Your task to perform on an android device: read, delete, or share a saved page in the chrome app Image 0: 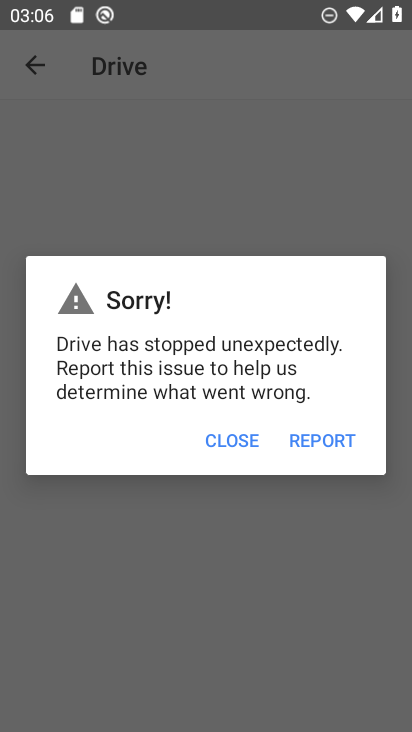
Step 0: press home button
Your task to perform on an android device: read, delete, or share a saved page in the chrome app Image 1: 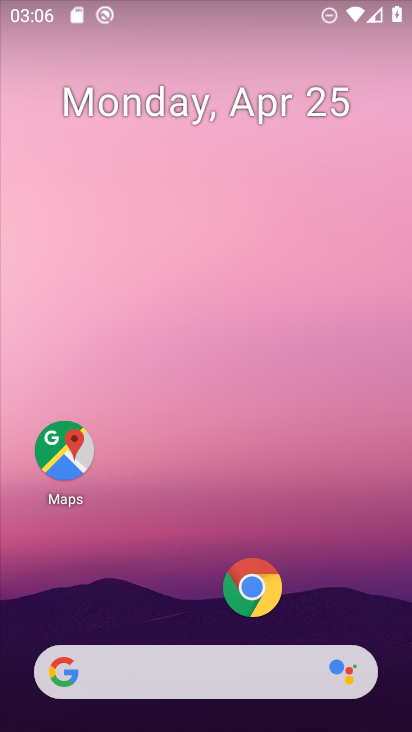
Step 1: click (252, 593)
Your task to perform on an android device: read, delete, or share a saved page in the chrome app Image 2: 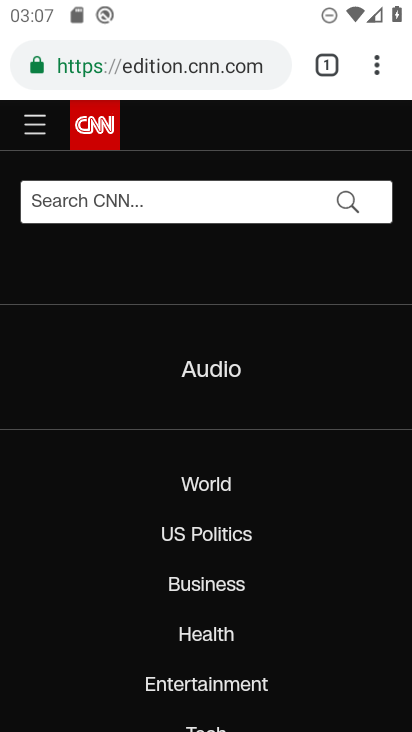
Step 2: click (365, 70)
Your task to perform on an android device: read, delete, or share a saved page in the chrome app Image 3: 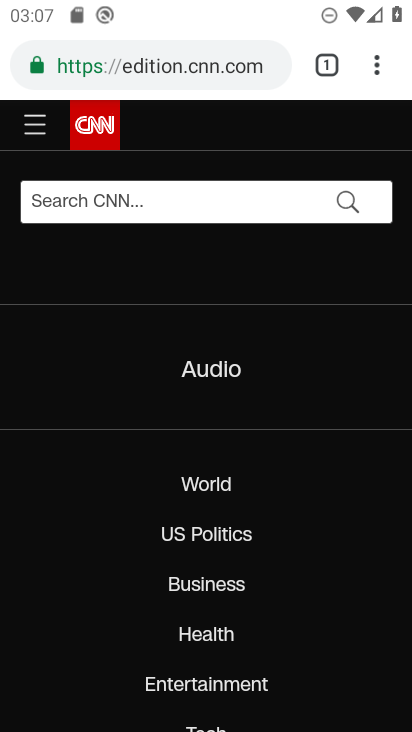
Step 3: click (374, 63)
Your task to perform on an android device: read, delete, or share a saved page in the chrome app Image 4: 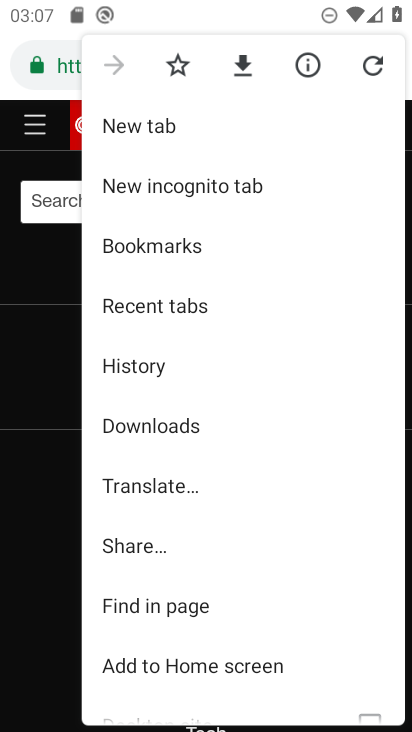
Step 4: click (208, 421)
Your task to perform on an android device: read, delete, or share a saved page in the chrome app Image 5: 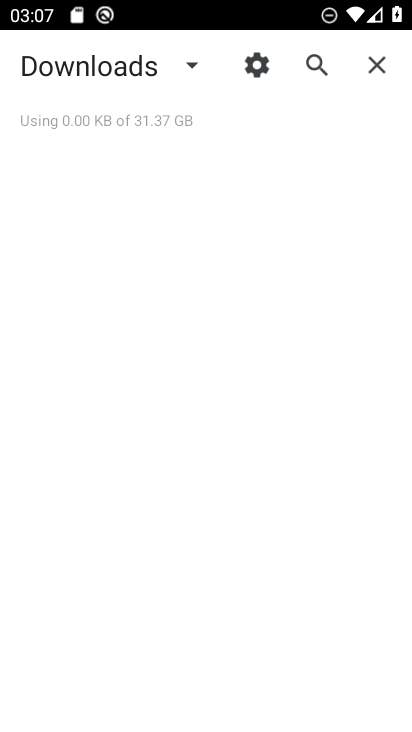
Step 5: task complete